Your task to perform on an android device: Open Maps and search for coffee Image 0: 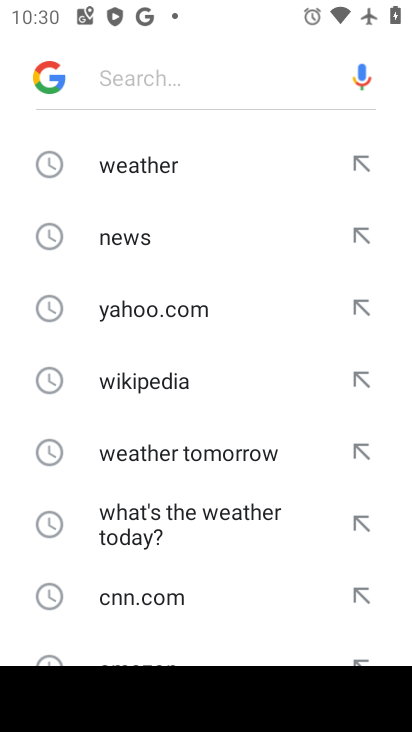
Step 0: press home button
Your task to perform on an android device: Open Maps and search for coffee Image 1: 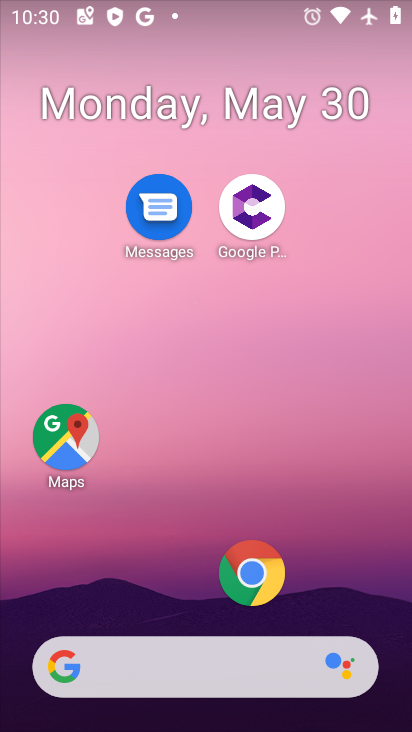
Step 1: drag from (153, 633) to (198, 100)
Your task to perform on an android device: Open Maps and search for coffee Image 2: 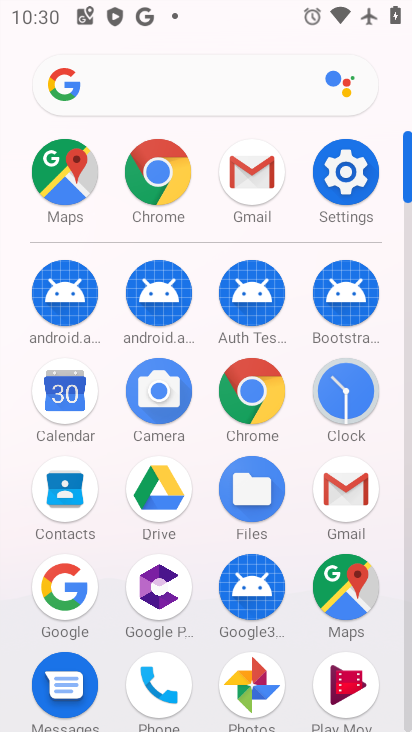
Step 2: click (348, 611)
Your task to perform on an android device: Open Maps and search for coffee Image 3: 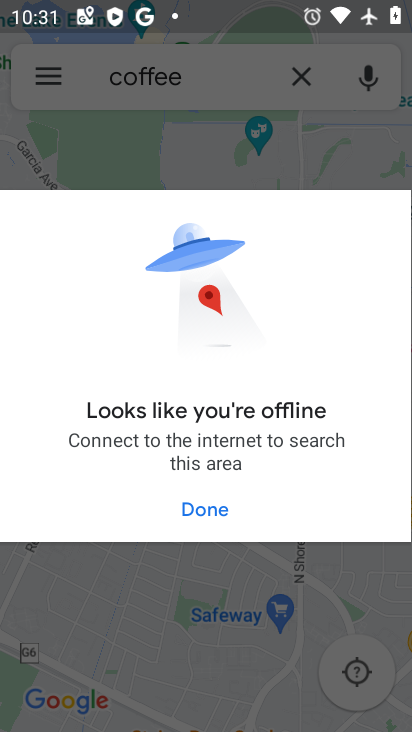
Step 3: click (181, 510)
Your task to perform on an android device: Open Maps and search for coffee Image 4: 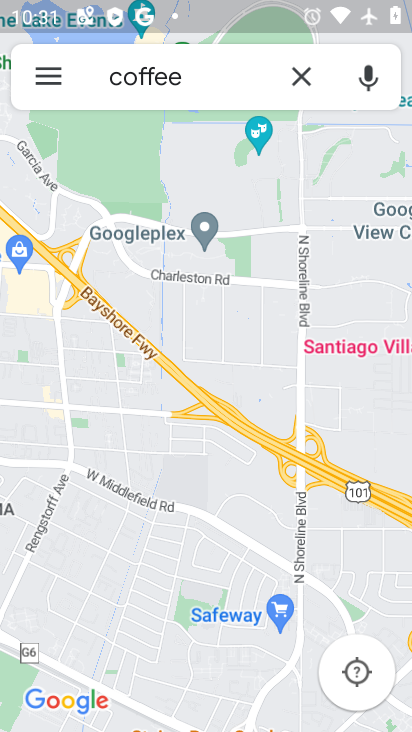
Step 4: click (243, 55)
Your task to perform on an android device: Open Maps and search for coffee Image 5: 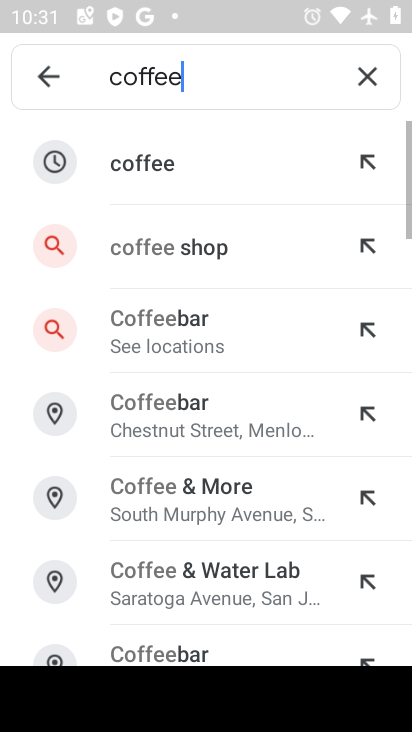
Step 5: click (259, 156)
Your task to perform on an android device: Open Maps and search for coffee Image 6: 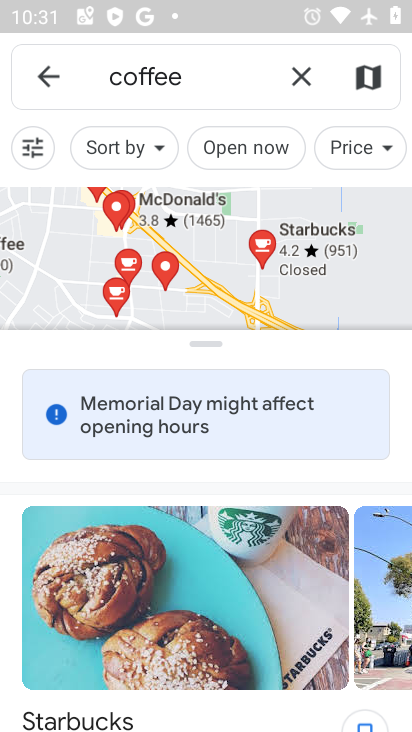
Step 6: task complete